Your task to perform on an android device: Open eBay Image 0: 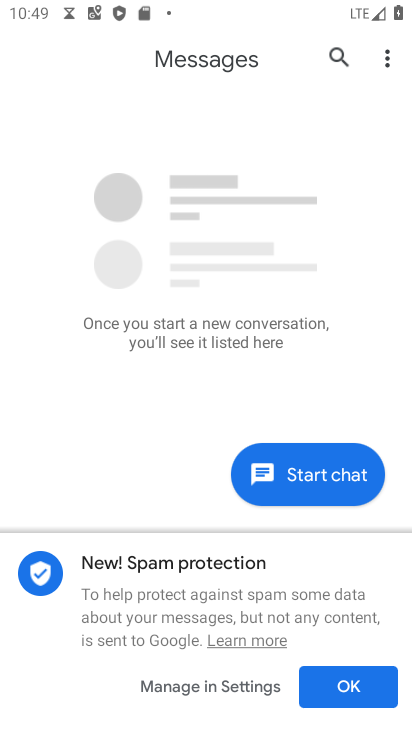
Step 0: press home button
Your task to perform on an android device: Open eBay Image 1: 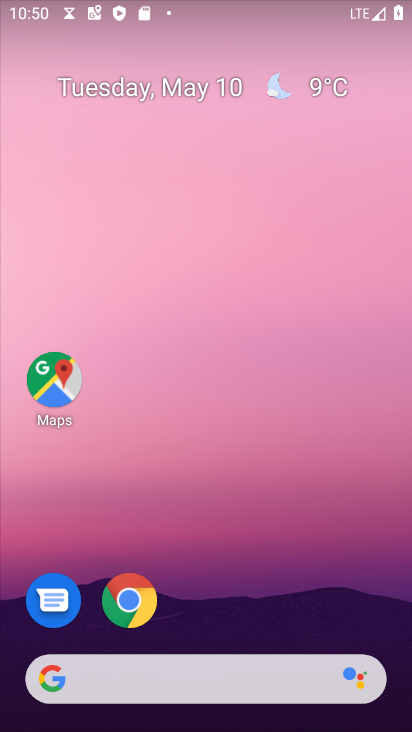
Step 1: drag from (264, 601) to (158, 721)
Your task to perform on an android device: Open eBay Image 2: 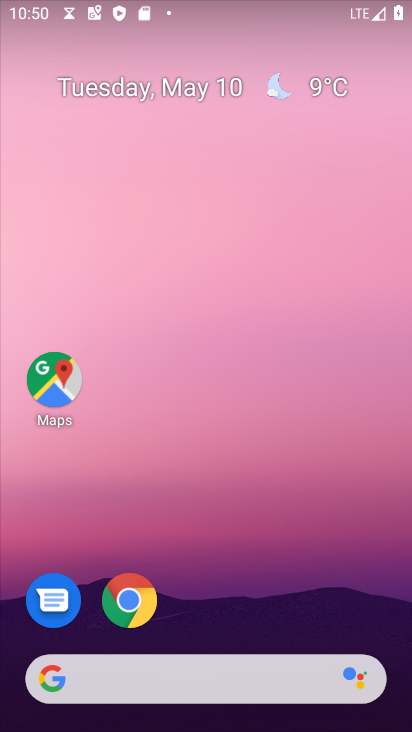
Step 2: click (110, 578)
Your task to perform on an android device: Open eBay Image 3: 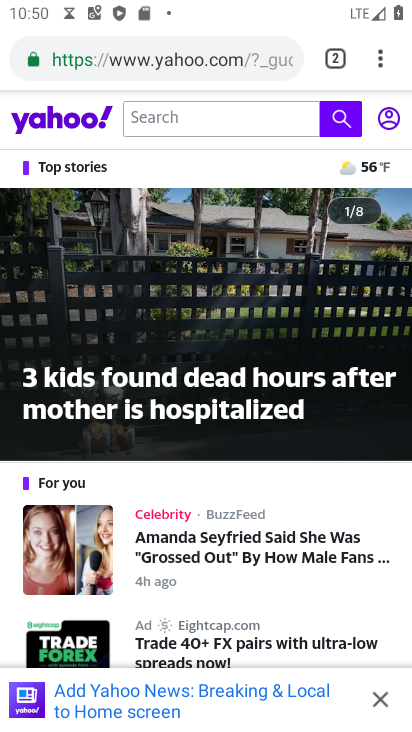
Step 3: click (325, 56)
Your task to perform on an android device: Open eBay Image 4: 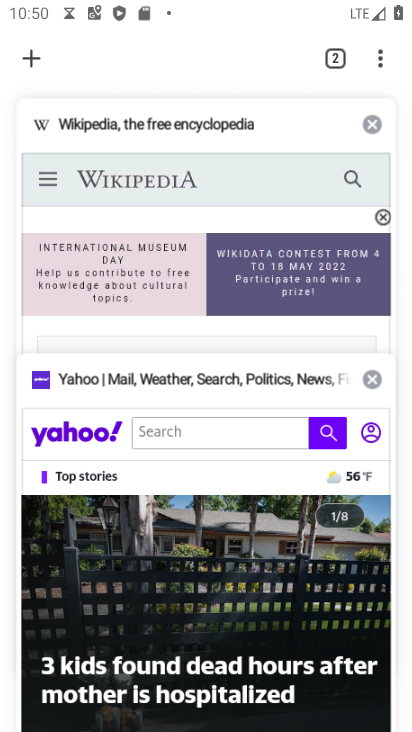
Step 4: click (35, 59)
Your task to perform on an android device: Open eBay Image 5: 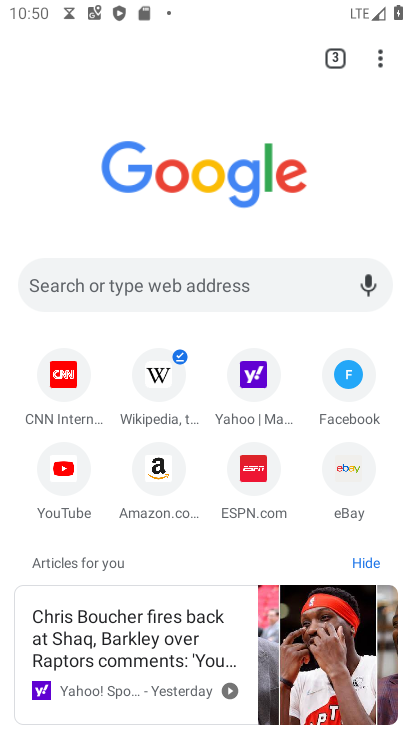
Step 5: click (354, 469)
Your task to perform on an android device: Open eBay Image 6: 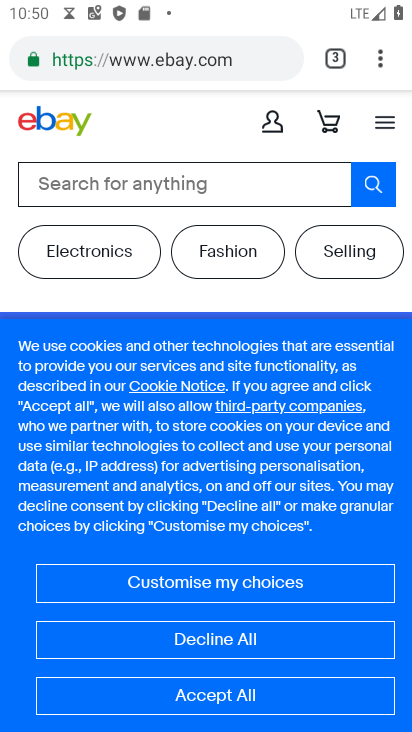
Step 6: task complete